Your task to perform on an android device: Open ESPN.com Image 0: 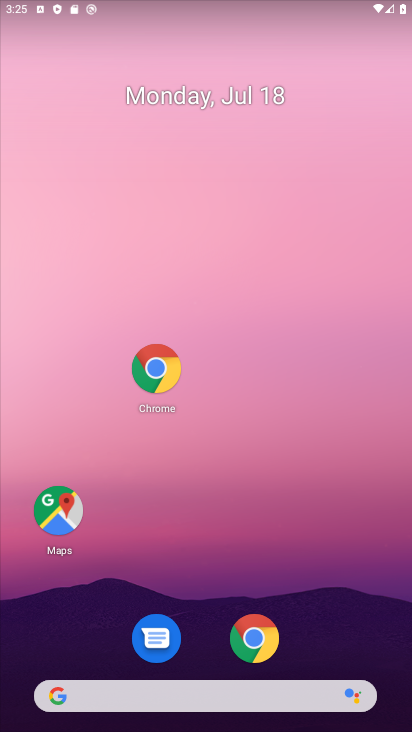
Step 0: click (254, 653)
Your task to perform on an android device: Open ESPN.com Image 1: 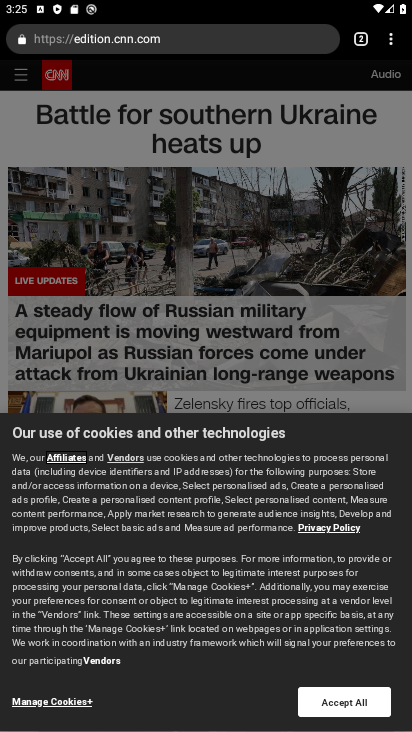
Step 1: click (361, 43)
Your task to perform on an android device: Open ESPN.com Image 2: 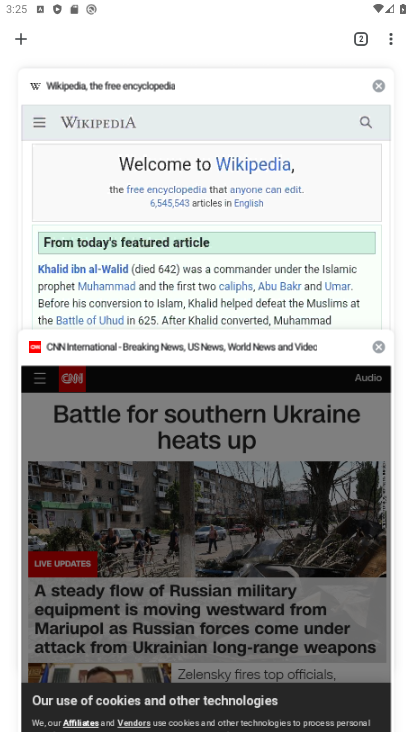
Step 2: click (9, 50)
Your task to perform on an android device: Open ESPN.com Image 3: 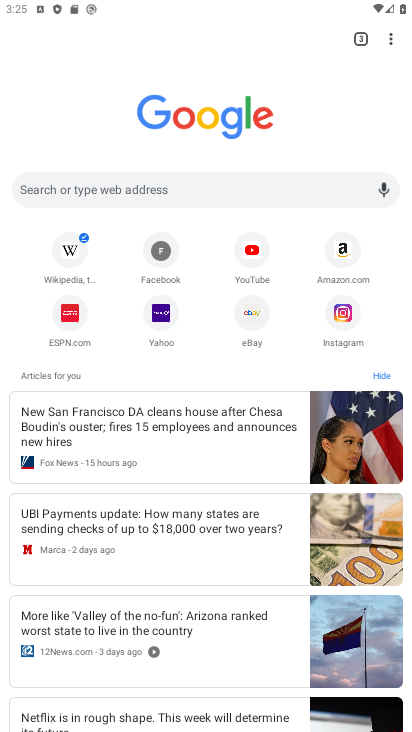
Step 3: click (67, 312)
Your task to perform on an android device: Open ESPN.com Image 4: 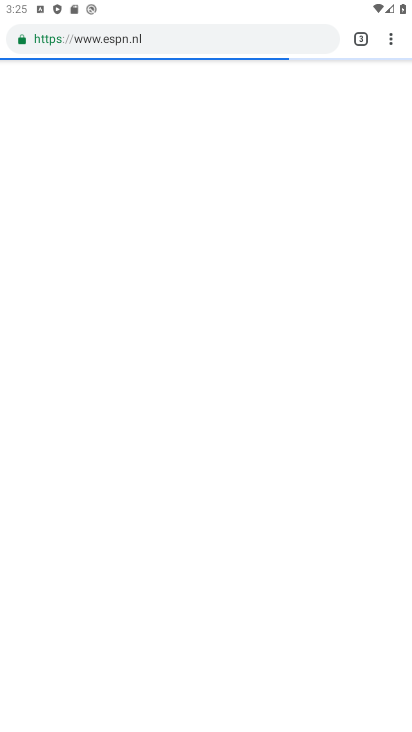
Step 4: task complete